Your task to perform on an android device: Clear all items from cart on amazon. Image 0: 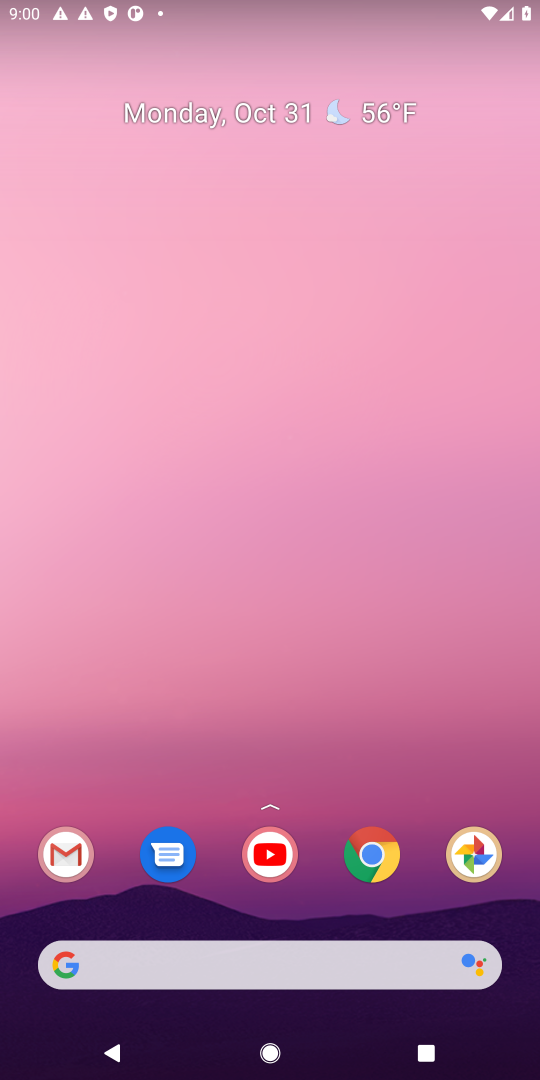
Step 0: click (150, 977)
Your task to perform on an android device: Clear all items from cart on amazon. Image 1: 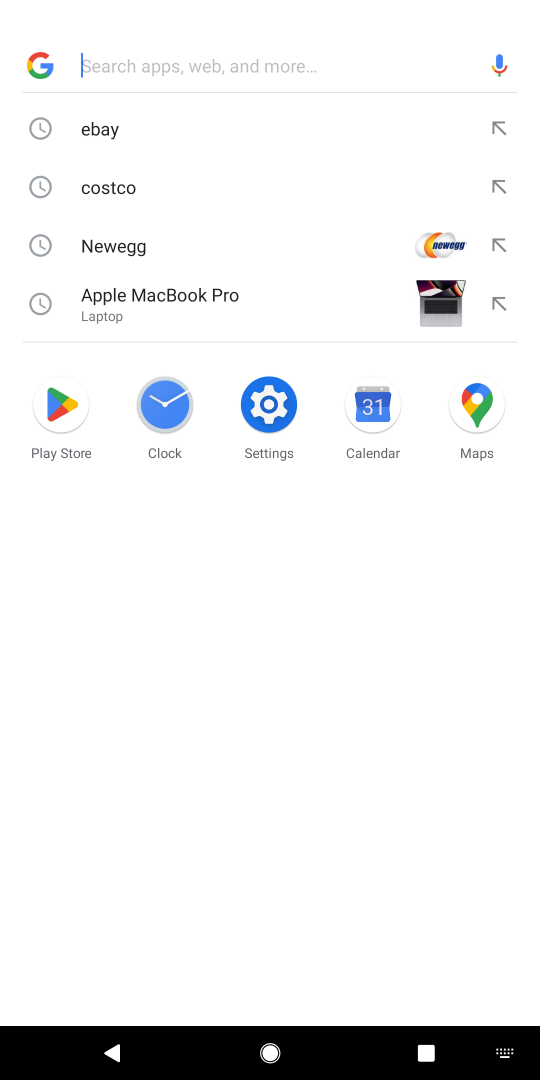
Step 1: type "amazon"
Your task to perform on an android device: Clear all items from cart on amazon. Image 2: 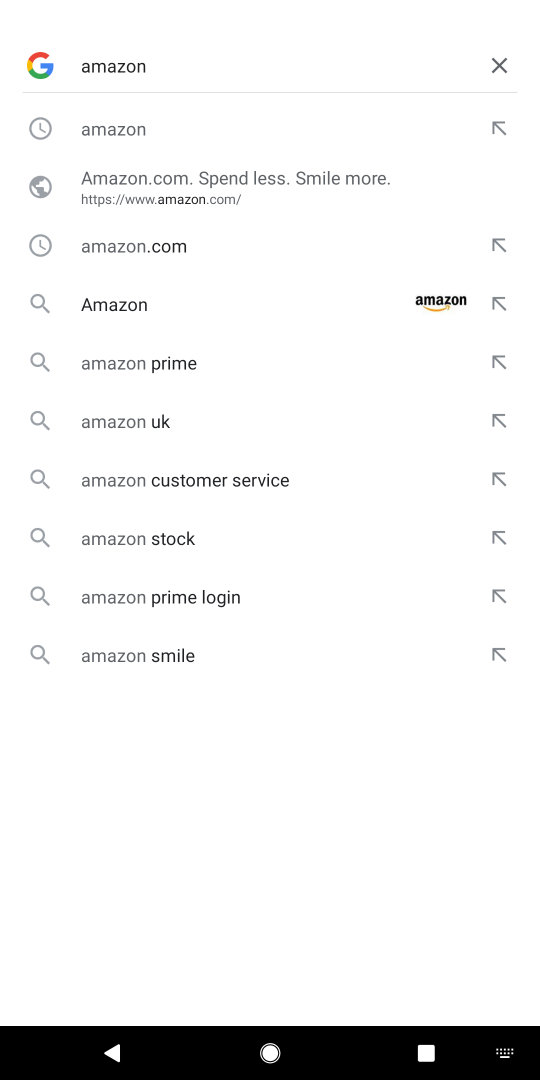
Step 2: click (198, 123)
Your task to perform on an android device: Clear all items from cart on amazon. Image 3: 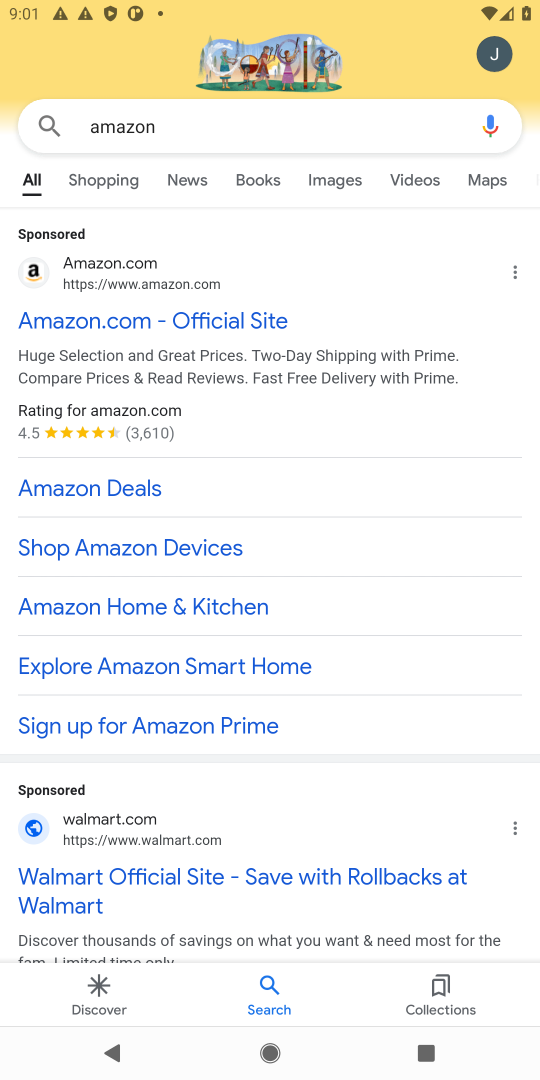
Step 3: click (108, 317)
Your task to perform on an android device: Clear all items from cart on amazon. Image 4: 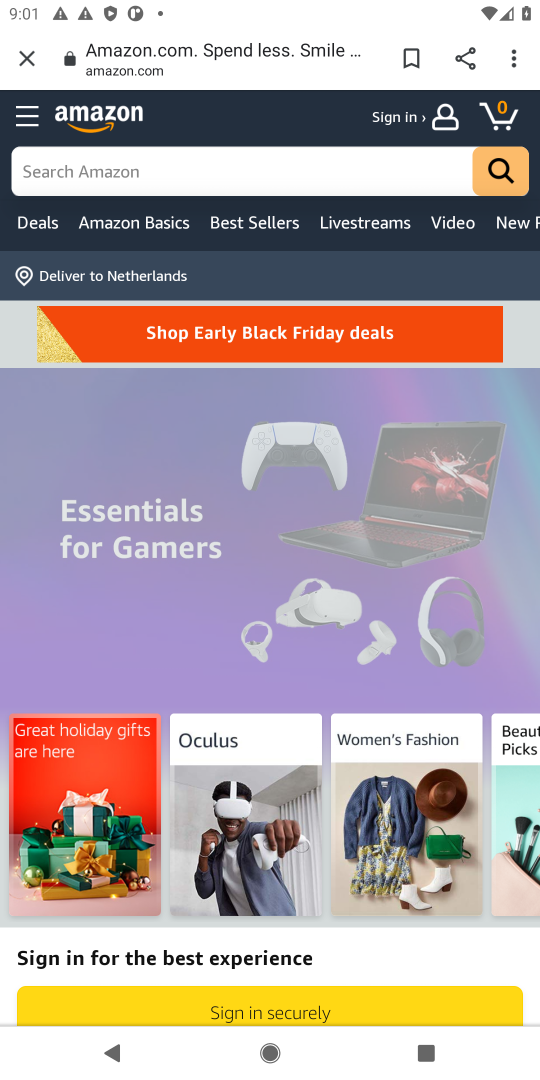
Step 4: click (510, 103)
Your task to perform on an android device: Clear all items from cart on amazon. Image 5: 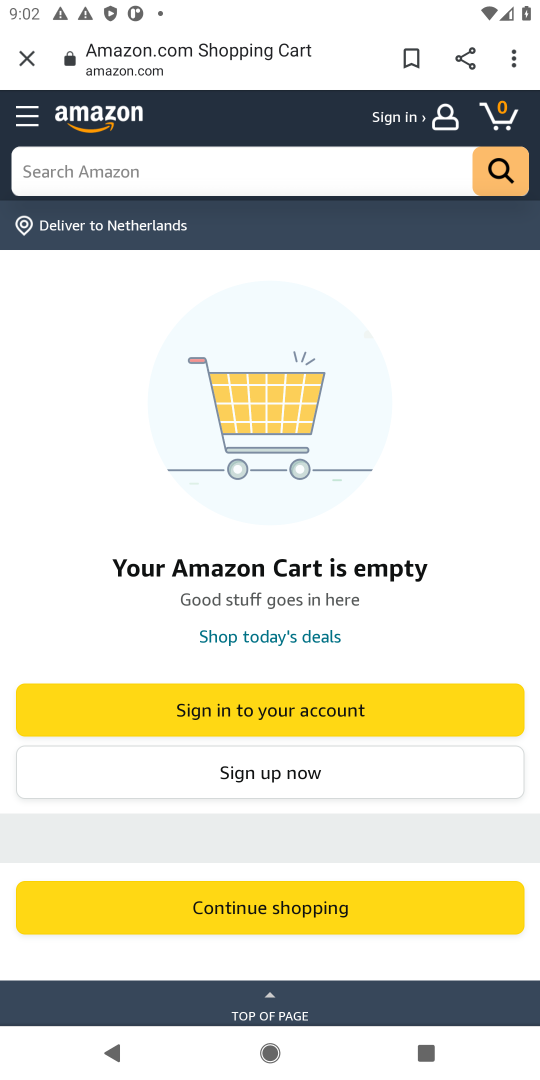
Step 5: task complete